Your task to perform on an android device: Open battery settings Image 0: 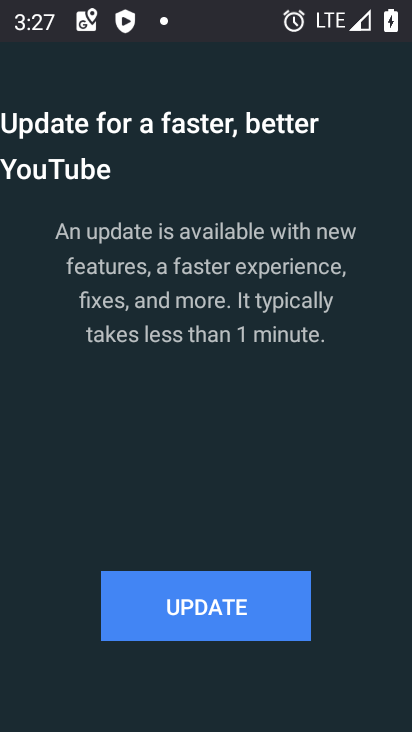
Step 0: click (259, 446)
Your task to perform on an android device: Open battery settings Image 1: 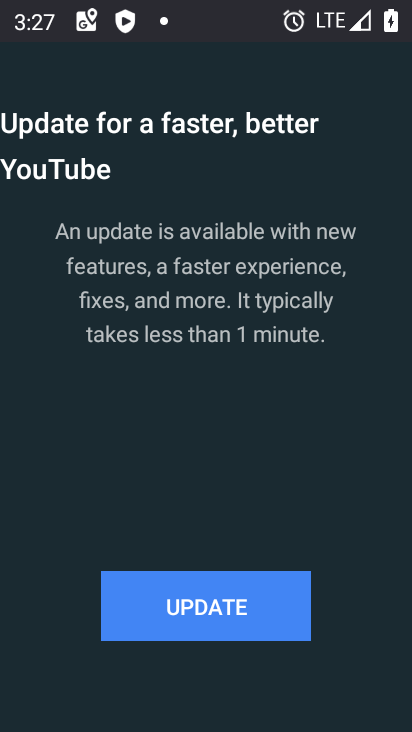
Step 1: press back button
Your task to perform on an android device: Open battery settings Image 2: 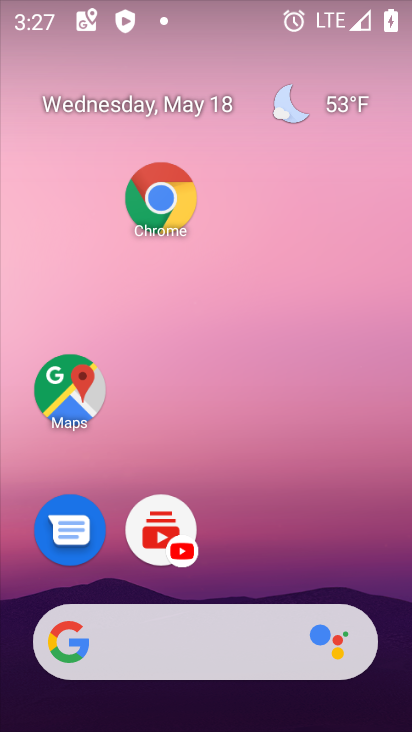
Step 2: drag from (221, 508) to (114, 153)
Your task to perform on an android device: Open battery settings Image 3: 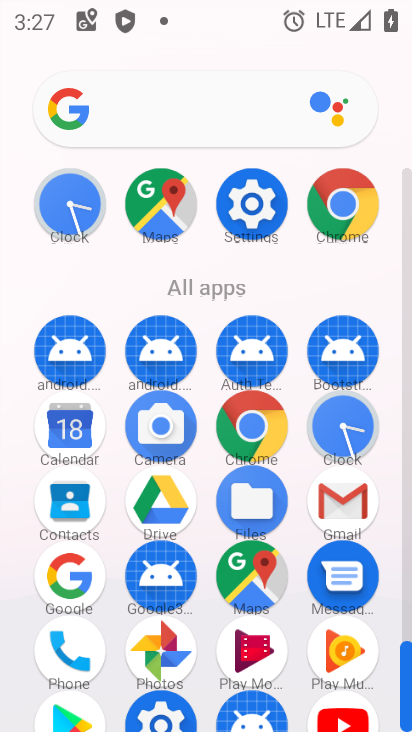
Step 3: click (260, 203)
Your task to perform on an android device: Open battery settings Image 4: 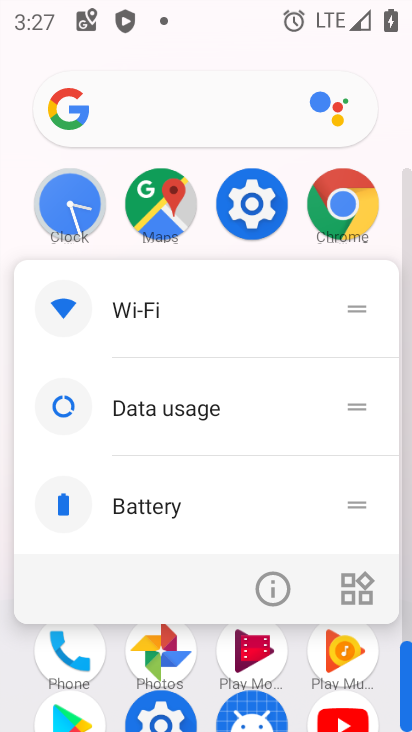
Step 4: click (119, 481)
Your task to perform on an android device: Open battery settings Image 5: 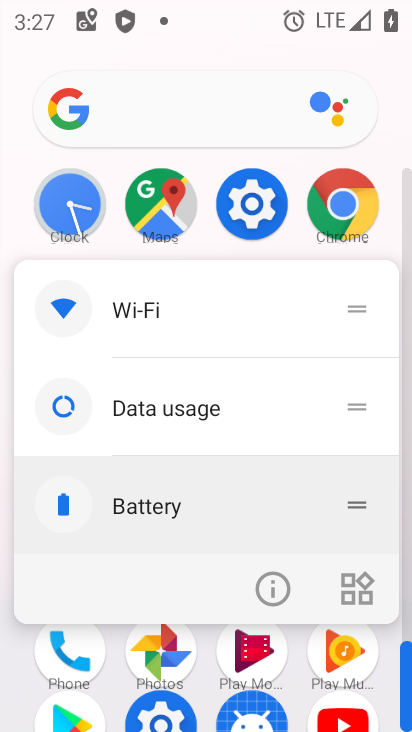
Step 5: click (125, 492)
Your task to perform on an android device: Open battery settings Image 6: 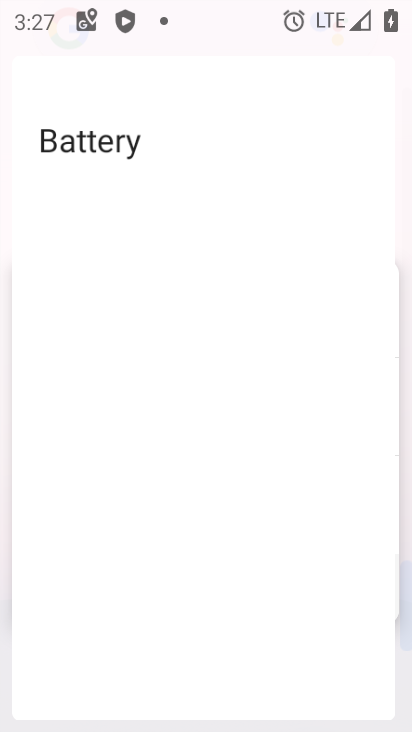
Step 6: click (125, 492)
Your task to perform on an android device: Open battery settings Image 7: 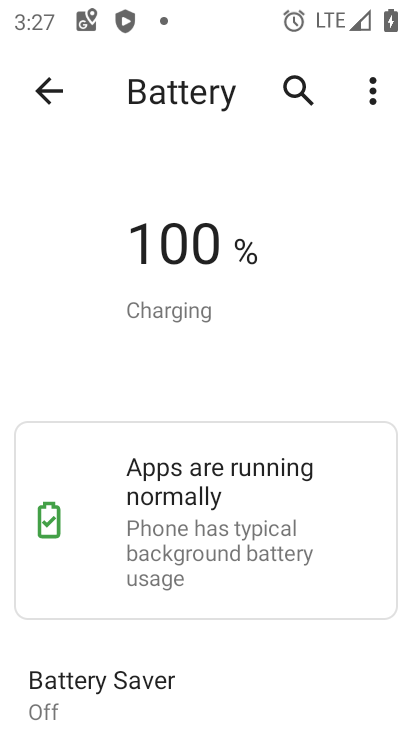
Step 7: task complete